Your task to perform on an android device: Open calendar and show me the first week of next month Image 0: 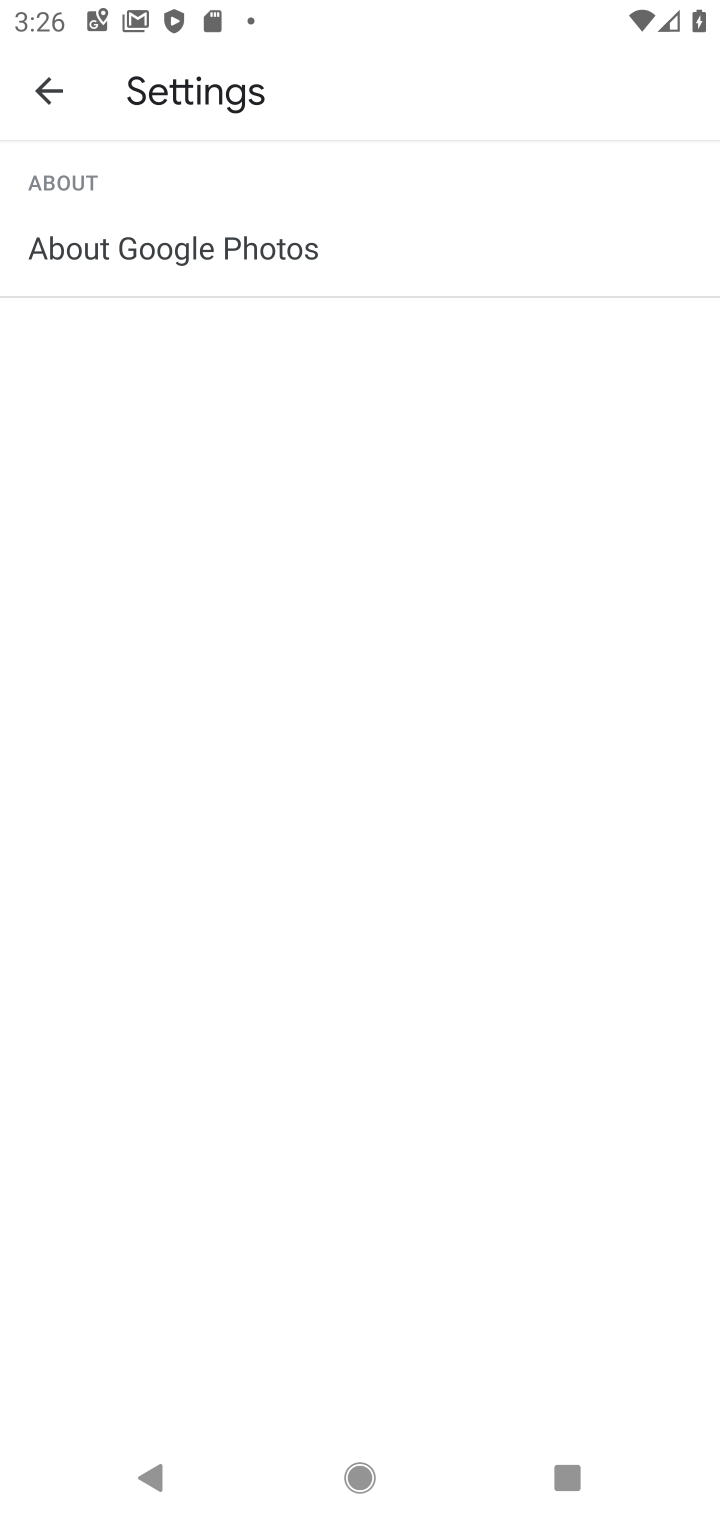
Step 0: press home button
Your task to perform on an android device: Open calendar and show me the first week of next month Image 1: 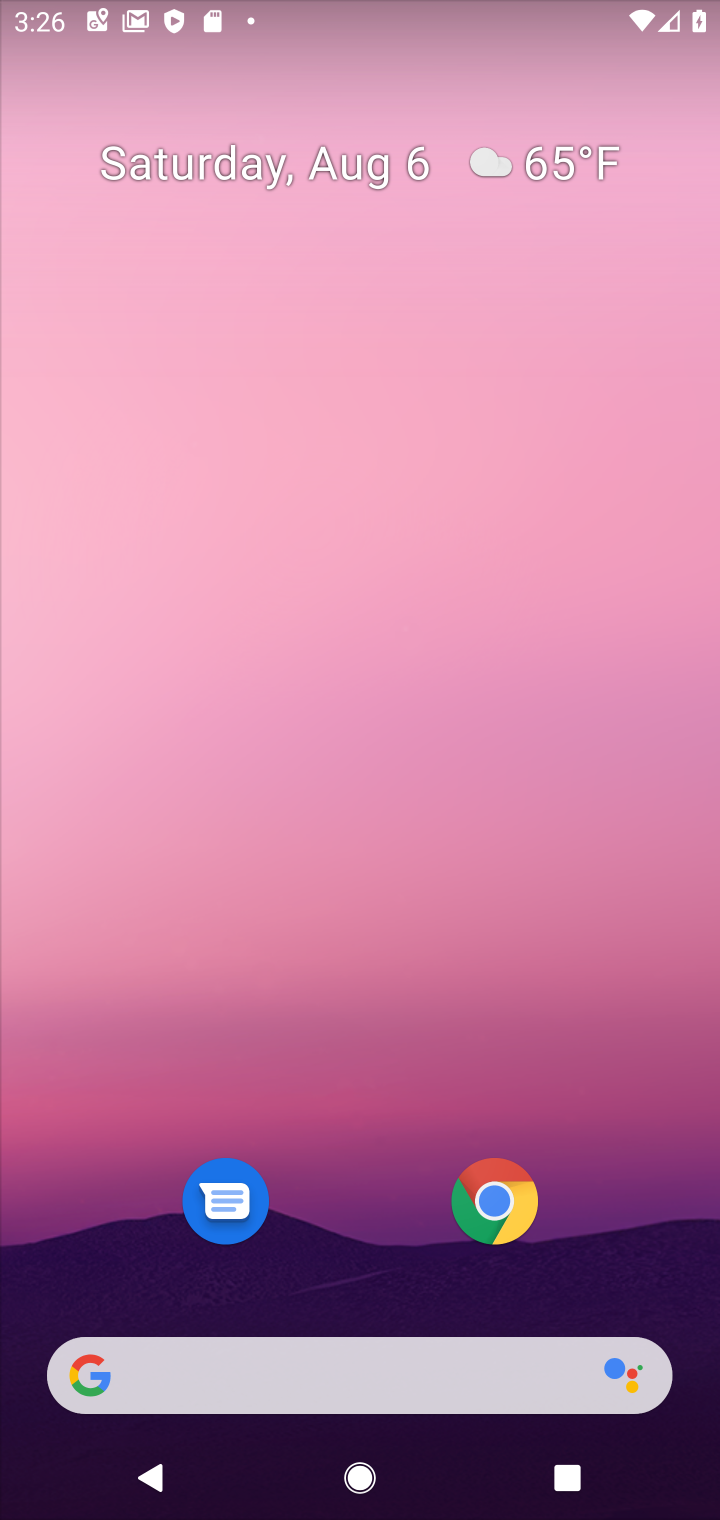
Step 1: drag from (246, 1140) to (353, 118)
Your task to perform on an android device: Open calendar and show me the first week of next month Image 2: 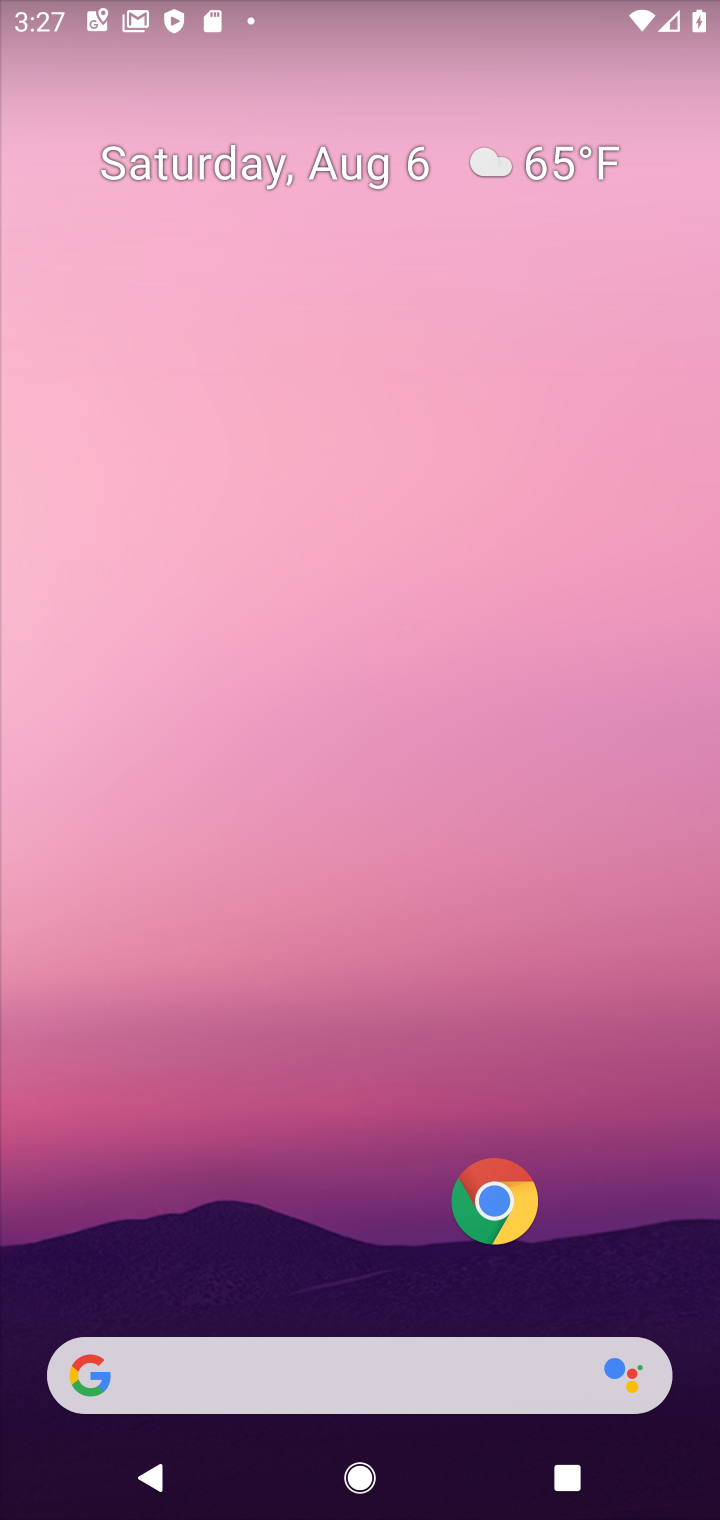
Step 2: drag from (436, 1280) to (431, 148)
Your task to perform on an android device: Open calendar and show me the first week of next month Image 3: 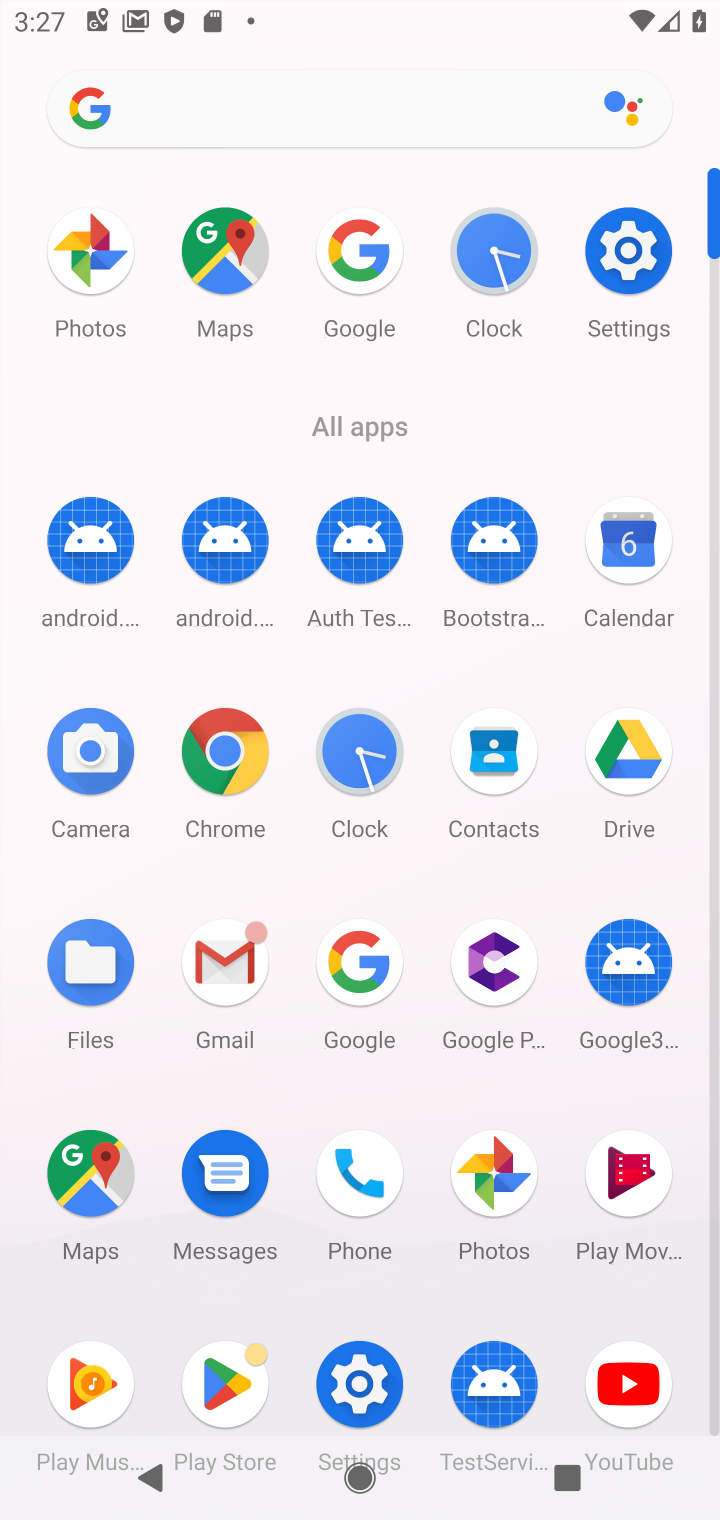
Step 3: click (627, 559)
Your task to perform on an android device: Open calendar and show me the first week of next month Image 4: 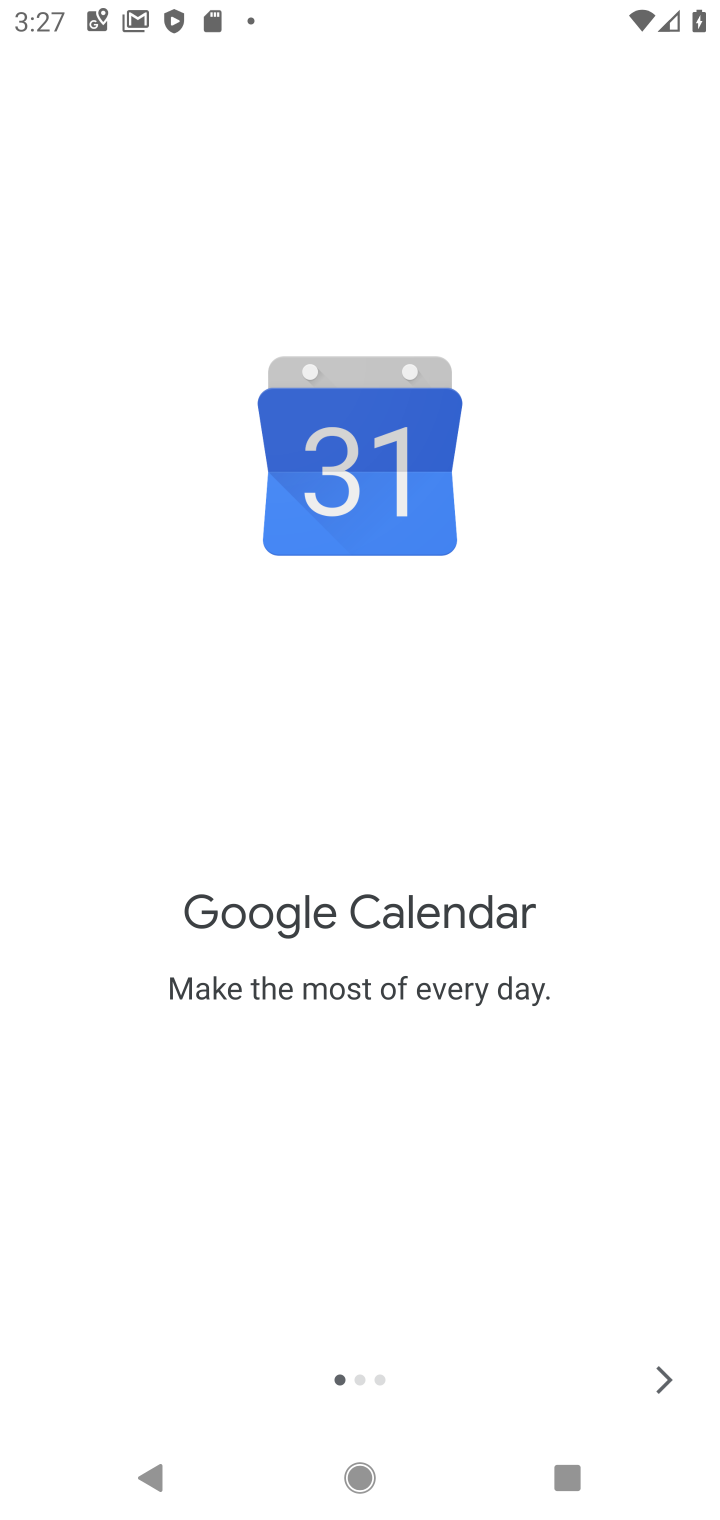
Step 4: click (683, 1387)
Your task to perform on an android device: Open calendar and show me the first week of next month Image 5: 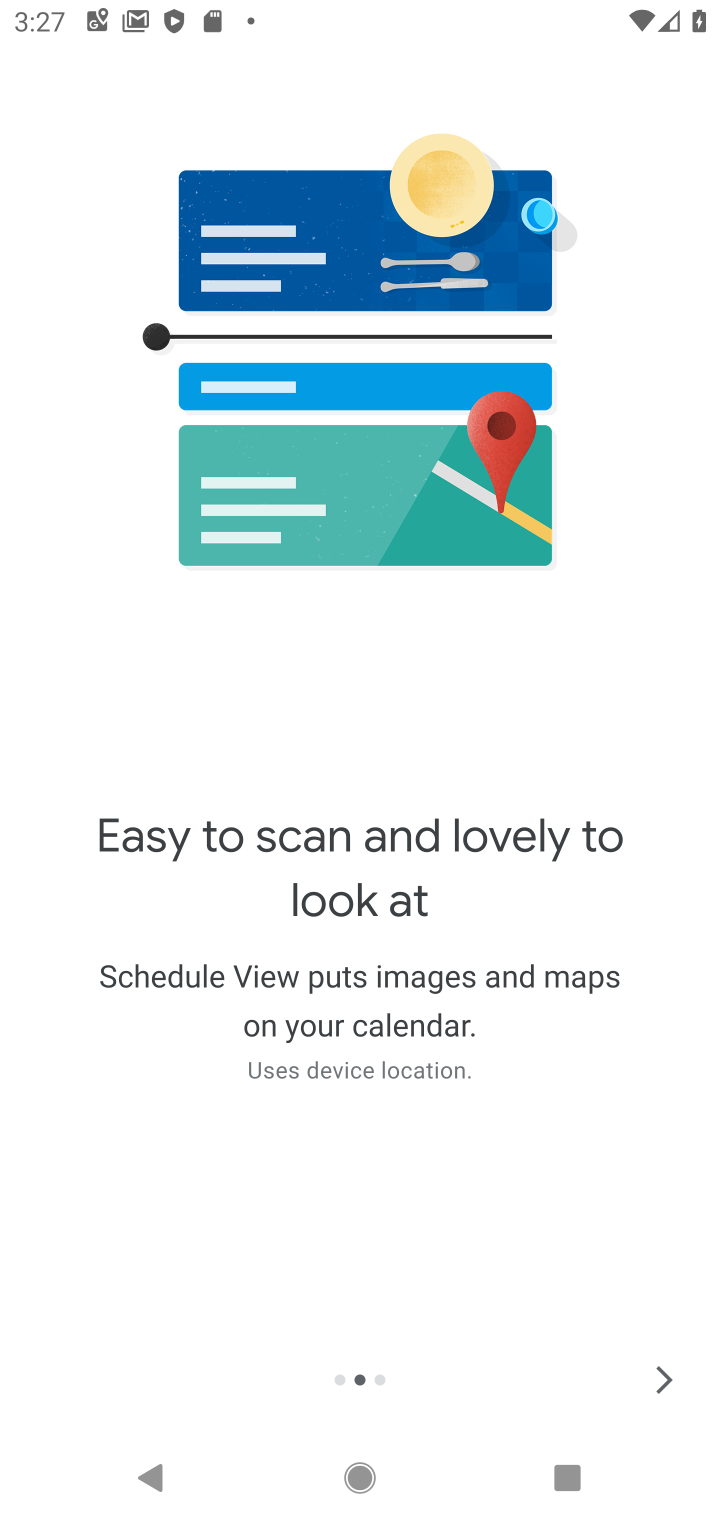
Step 5: click (683, 1387)
Your task to perform on an android device: Open calendar and show me the first week of next month Image 6: 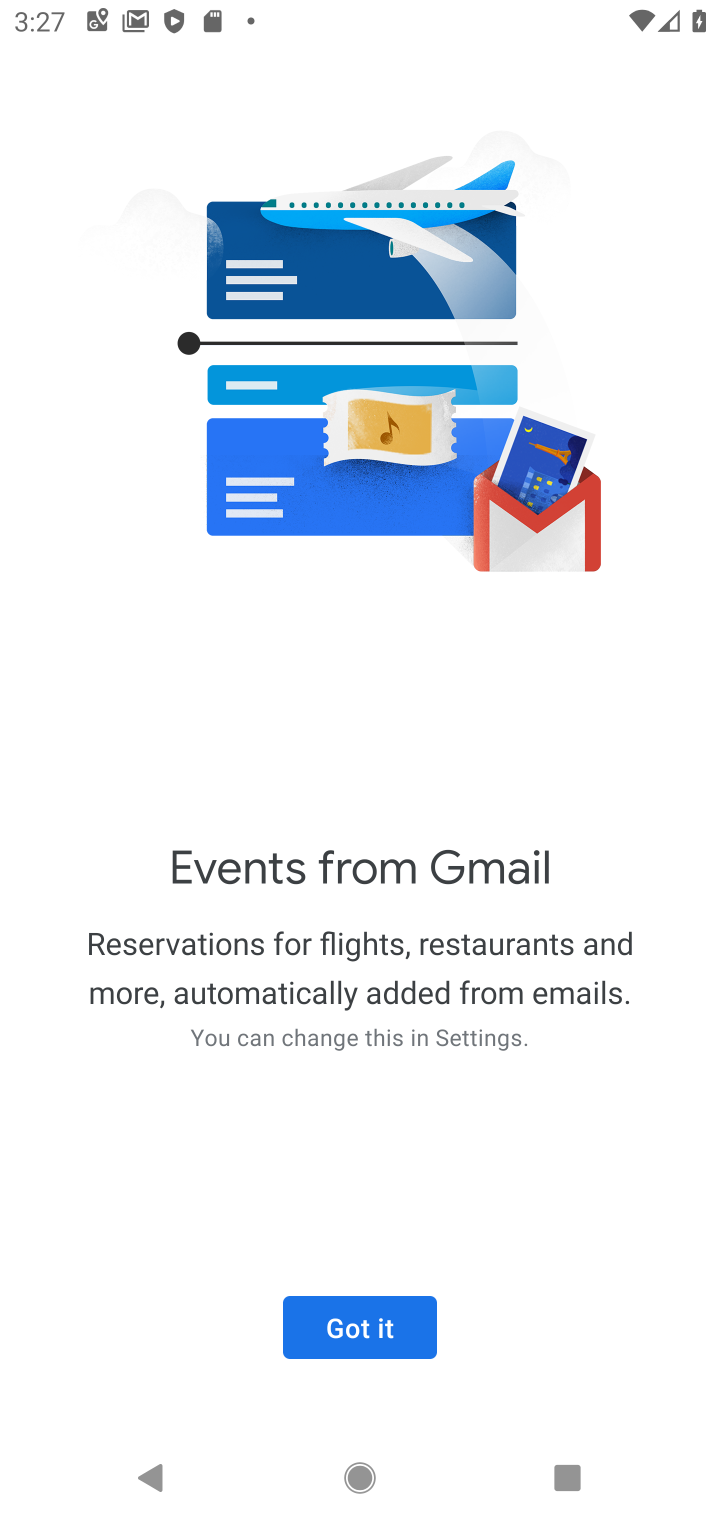
Step 6: click (383, 1323)
Your task to perform on an android device: Open calendar and show me the first week of next month Image 7: 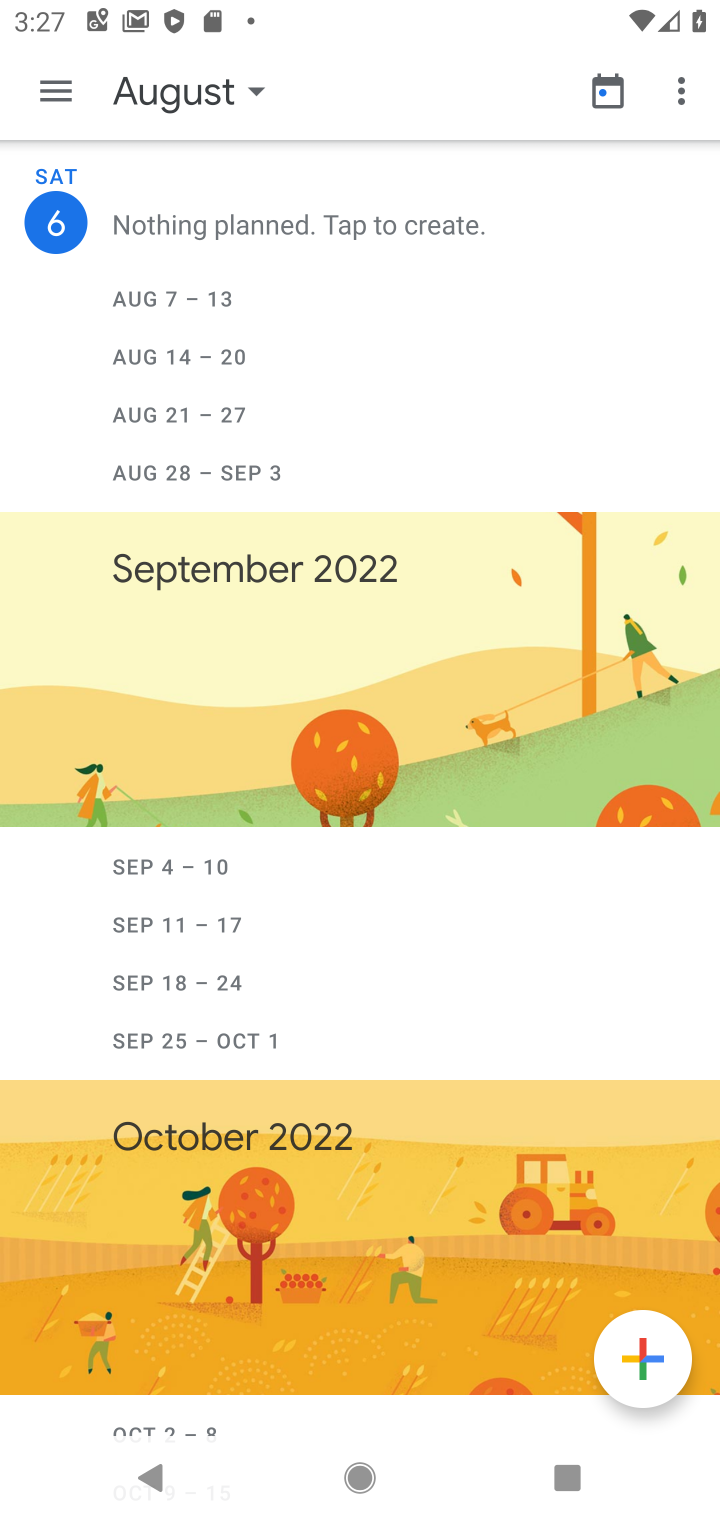
Step 7: click (192, 93)
Your task to perform on an android device: Open calendar and show me the first week of next month Image 8: 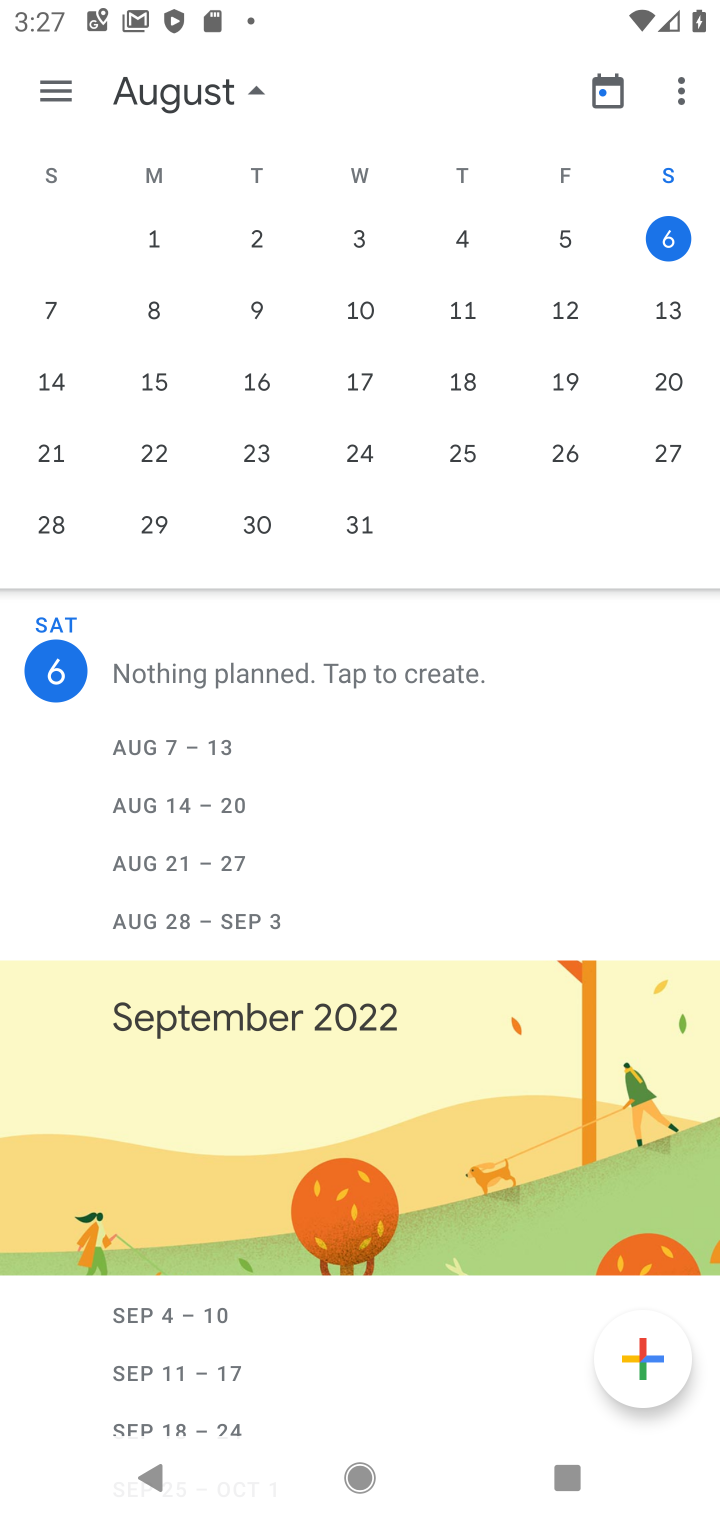
Step 8: drag from (658, 366) to (67, 231)
Your task to perform on an android device: Open calendar and show me the first week of next month Image 9: 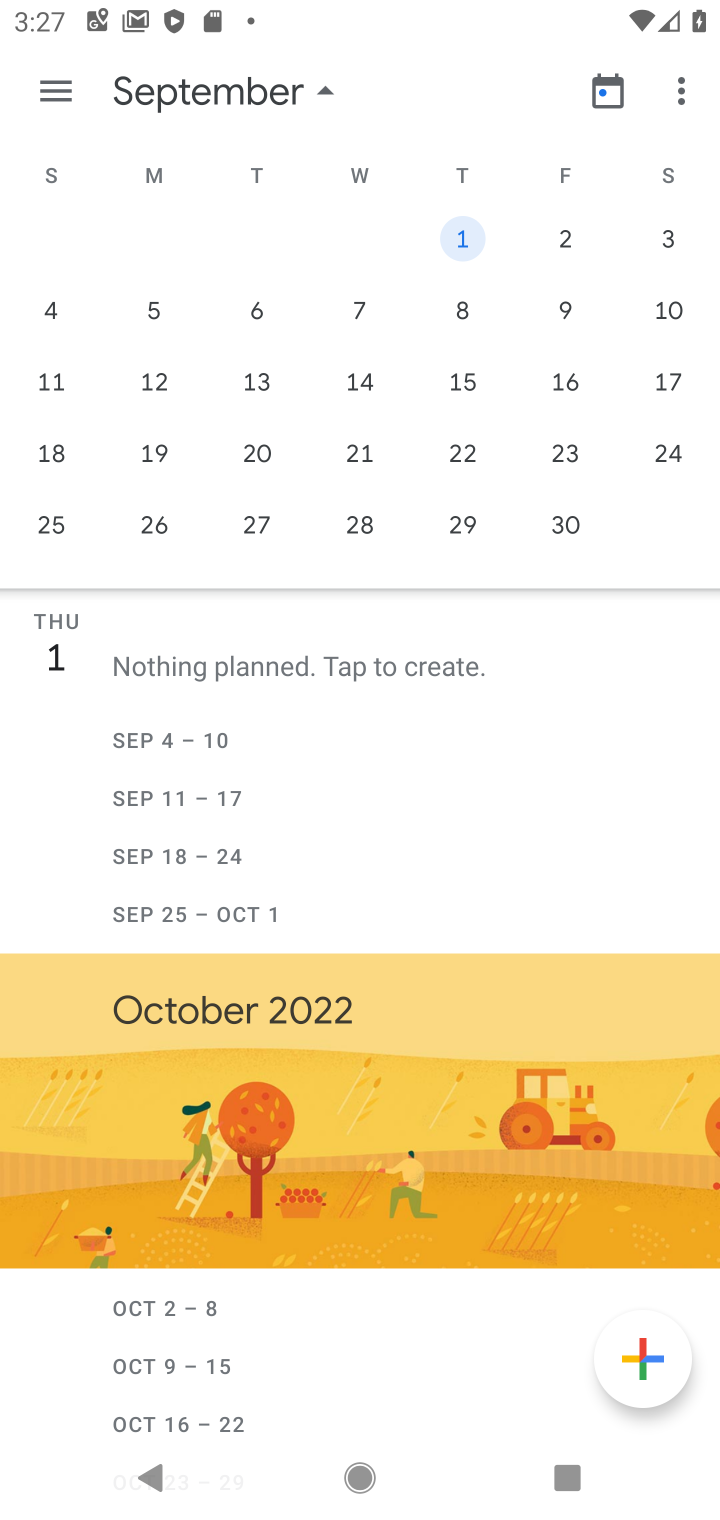
Step 9: click (464, 245)
Your task to perform on an android device: Open calendar and show me the first week of next month Image 10: 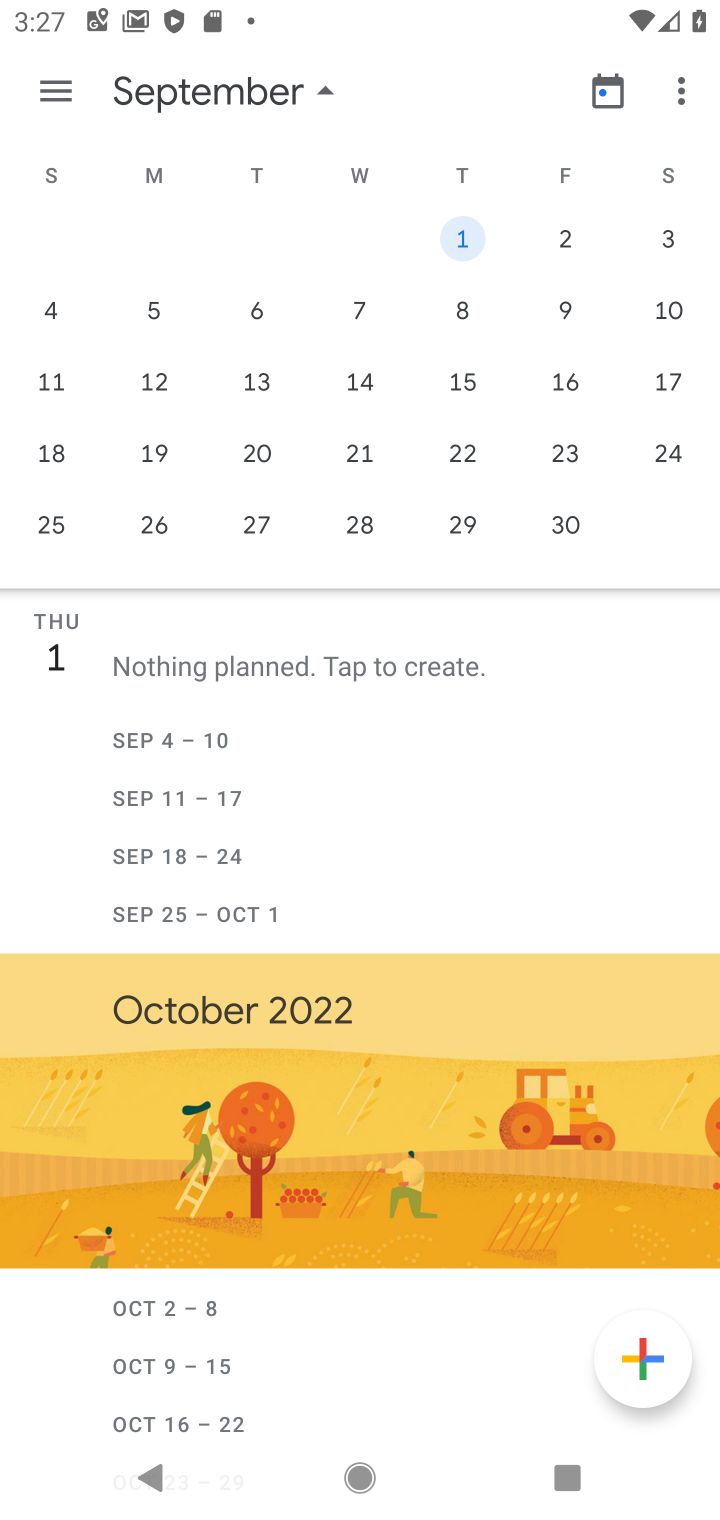
Step 10: task complete